Your task to perform on an android device: What's on my calendar today? Image 0: 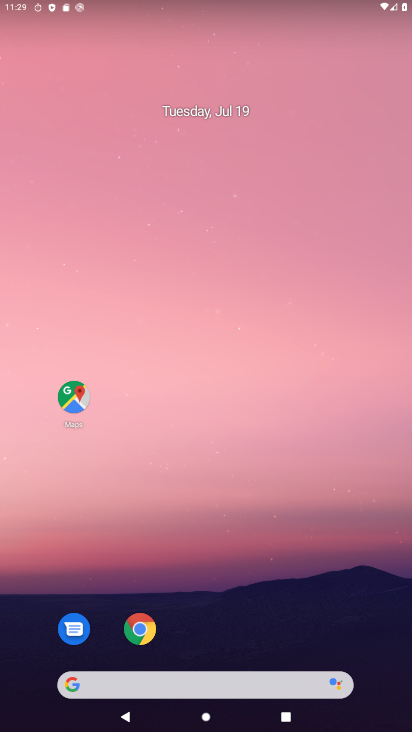
Step 0: drag from (328, 473) to (247, 18)
Your task to perform on an android device: What's on my calendar today? Image 1: 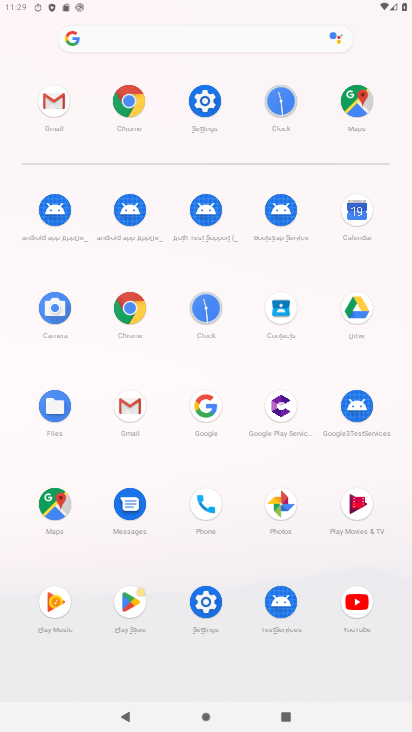
Step 1: click (356, 212)
Your task to perform on an android device: What's on my calendar today? Image 2: 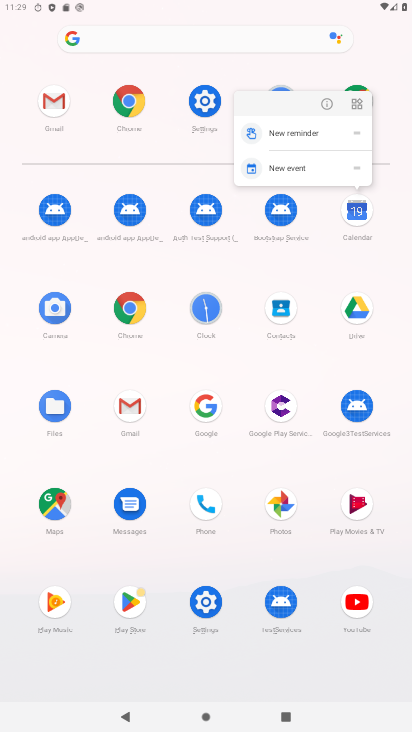
Step 2: click (356, 210)
Your task to perform on an android device: What's on my calendar today? Image 3: 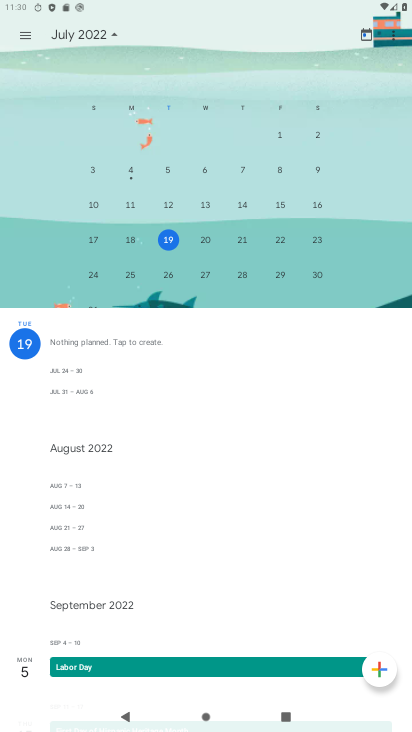
Step 3: task complete